Your task to perform on an android device: Go to settings Image 0: 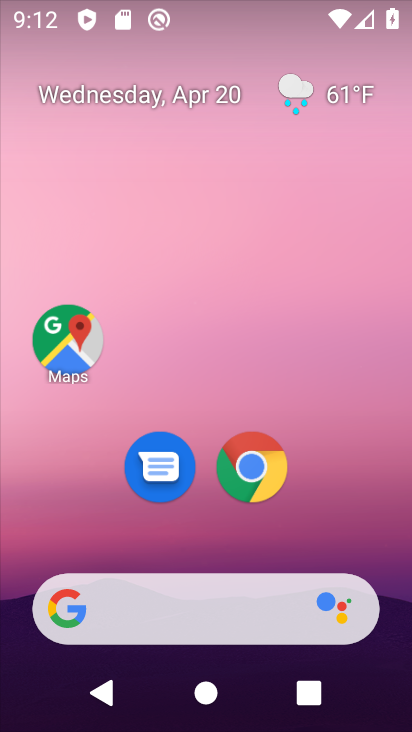
Step 0: drag from (308, 462) to (405, 206)
Your task to perform on an android device: Go to settings Image 1: 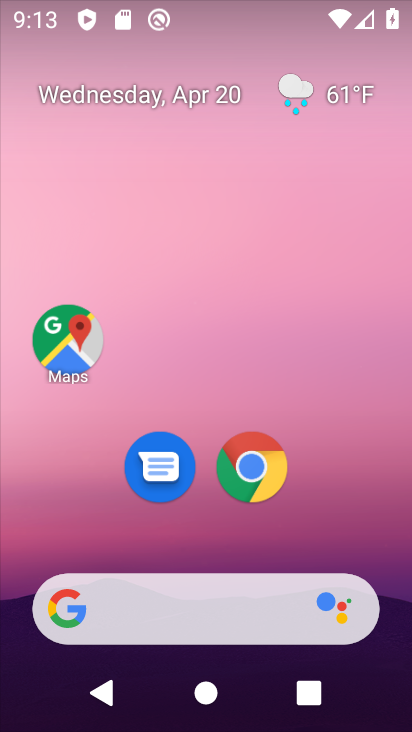
Step 1: drag from (319, 501) to (357, 67)
Your task to perform on an android device: Go to settings Image 2: 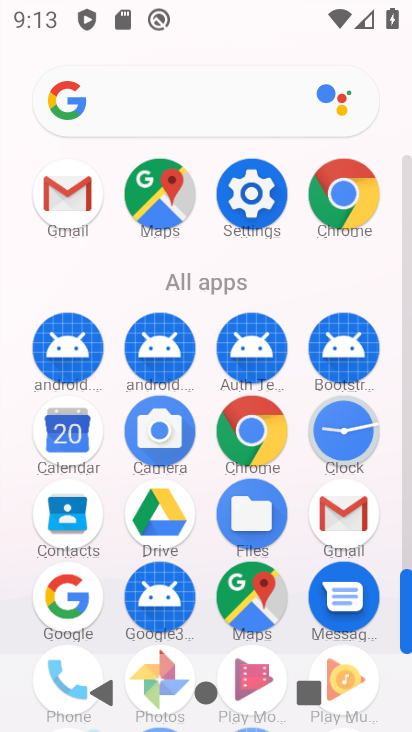
Step 2: click (239, 190)
Your task to perform on an android device: Go to settings Image 3: 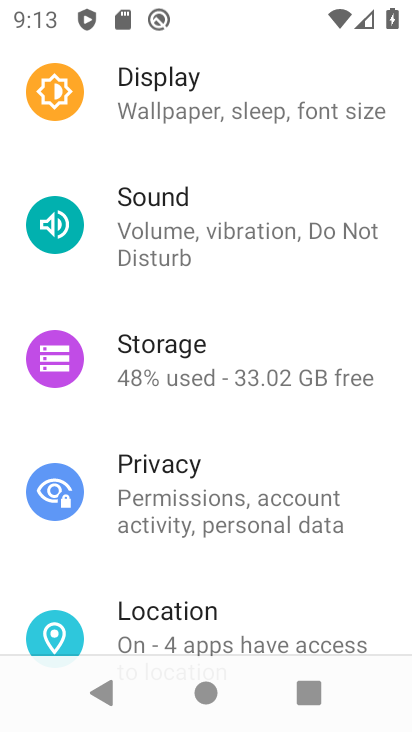
Step 3: task complete